Your task to perform on an android device: Open Google Image 0: 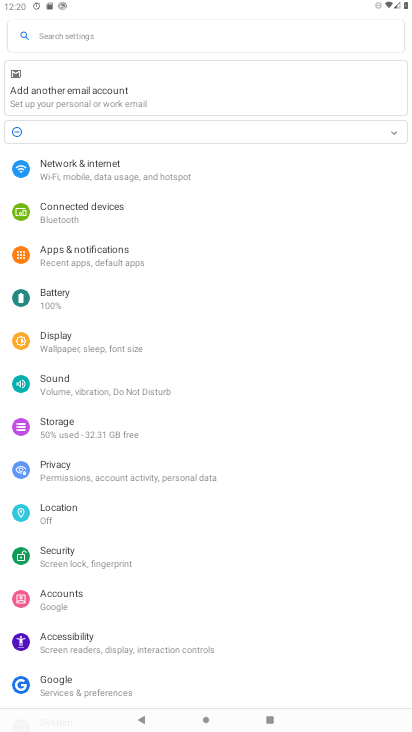
Step 0: press home button
Your task to perform on an android device: Open Google Image 1: 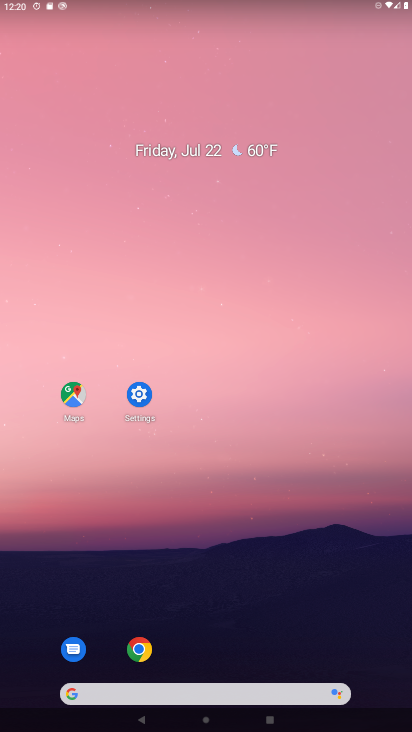
Step 1: drag from (379, 695) to (365, 237)
Your task to perform on an android device: Open Google Image 2: 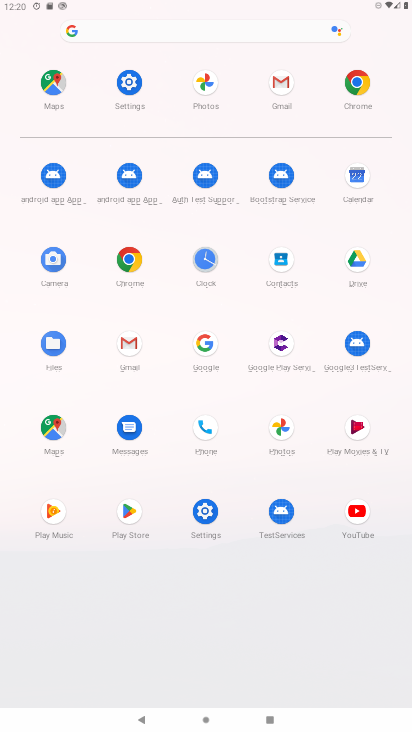
Step 2: click (204, 349)
Your task to perform on an android device: Open Google Image 3: 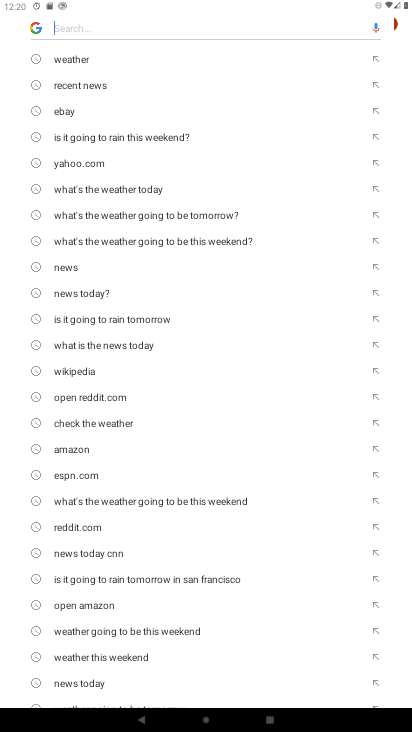
Step 3: task complete